Your task to perform on an android device: Open Maps and search for coffee Image 0: 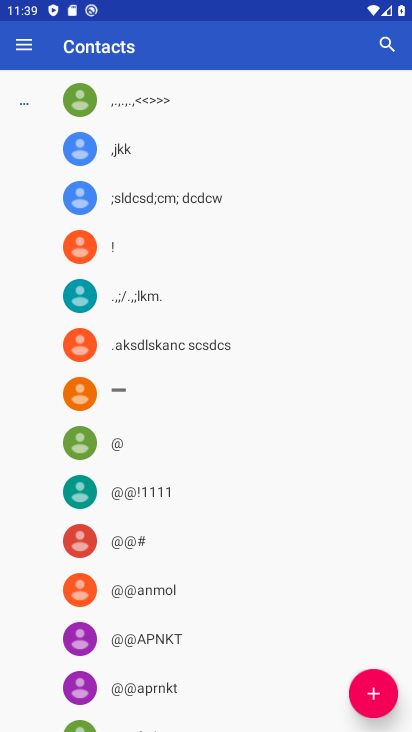
Step 0: press back button
Your task to perform on an android device: Open Maps and search for coffee Image 1: 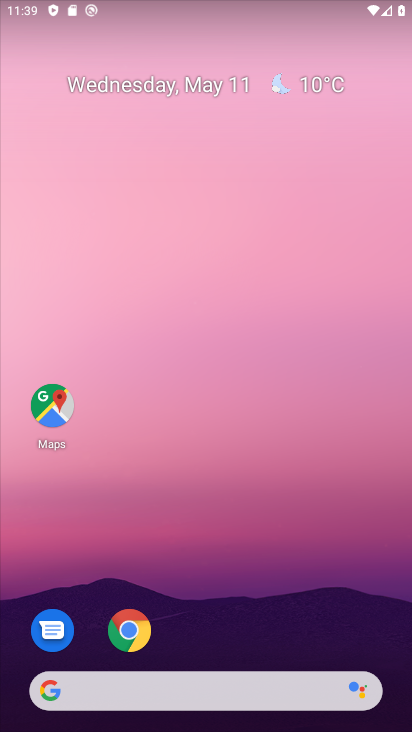
Step 1: click (48, 415)
Your task to perform on an android device: Open Maps and search for coffee Image 2: 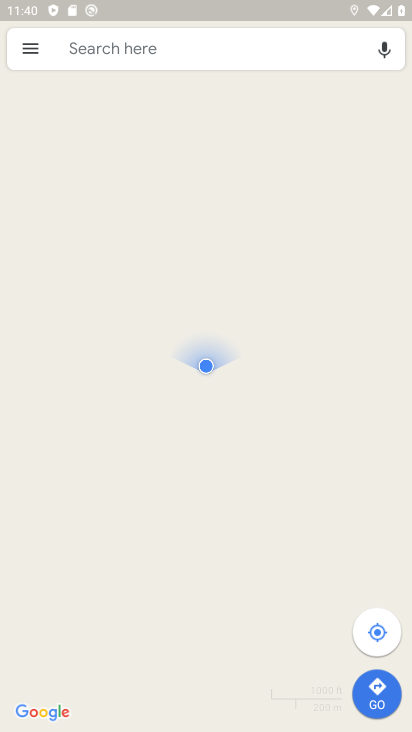
Step 2: click (145, 52)
Your task to perform on an android device: Open Maps and search for coffee Image 3: 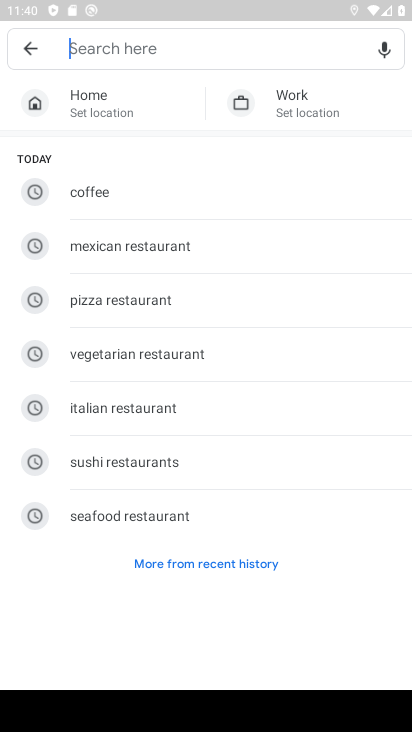
Step 3: type "Coffee"
Your task to perform on an android device: Open Maps and search for coffee Image 4: 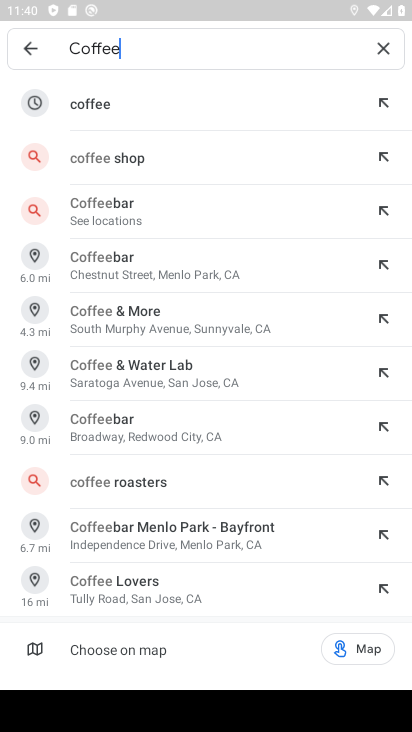
Step 4: click (147, 94)
Your task to perform on an android device: Open Maps and search for coffee Image 5: 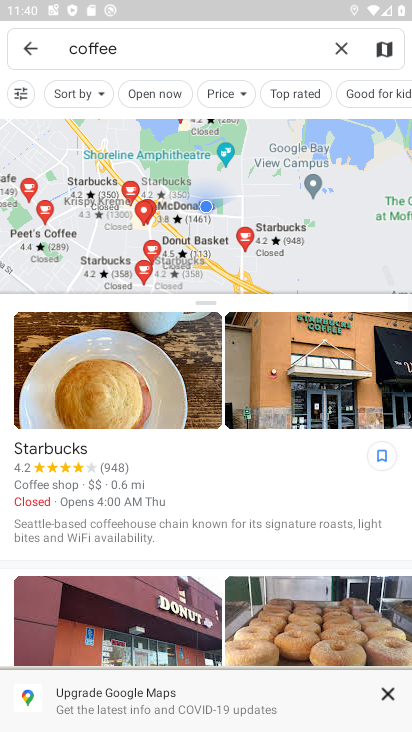
Step 5: click (395, 697)
Your task to perform on an android device: Open Maps and search for coffee Image 6: 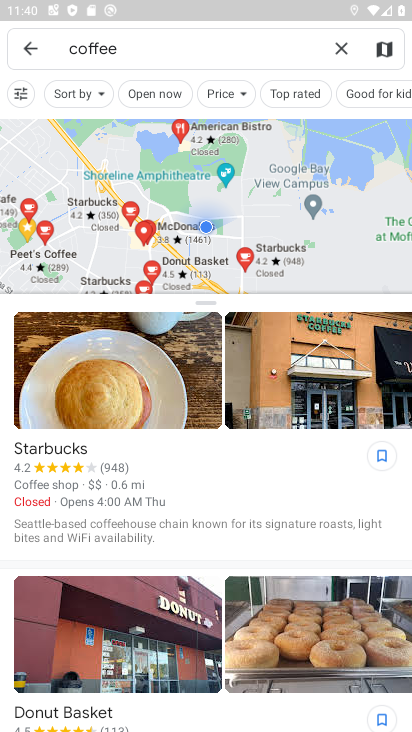
Step 6: task complete